Your task to perform on an android device: Go to Yahoo.com Image 0: 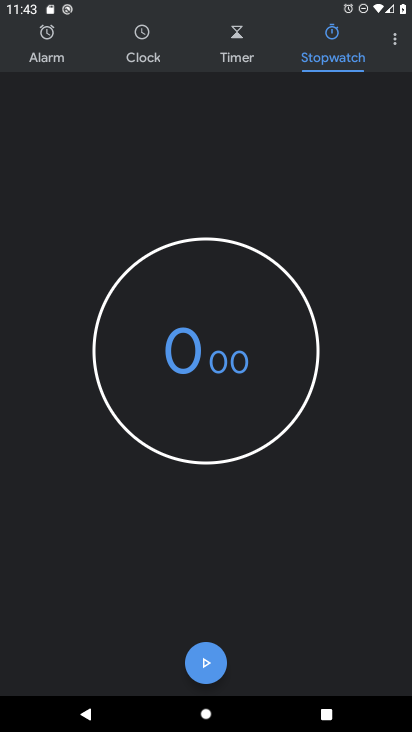
Step 0: drag from (334, 614) to (140, 224)
Your task to perform on an android device: Go to Yahoo.com Image 1: 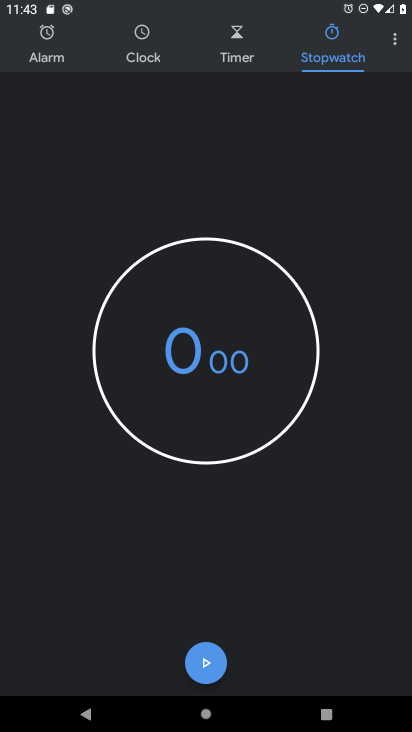
Step 1: press home button
Your task to perform on an android device: Go to Yahoo.com Image 2: 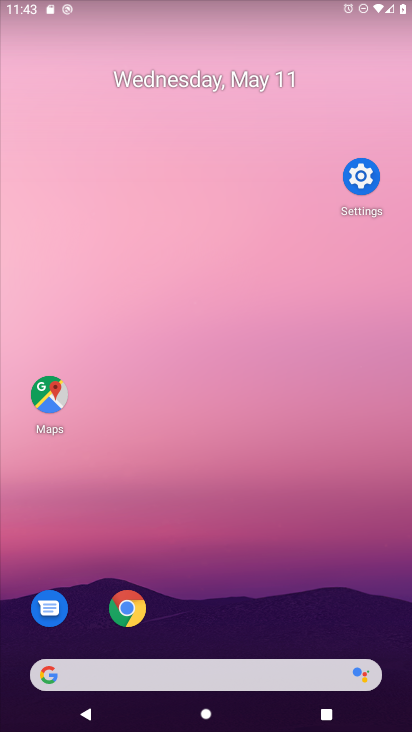
Step 2: drag from (290, 626) to (152, 125)
Your task to perform on an android device: Go to Yahoo.com Image 3: 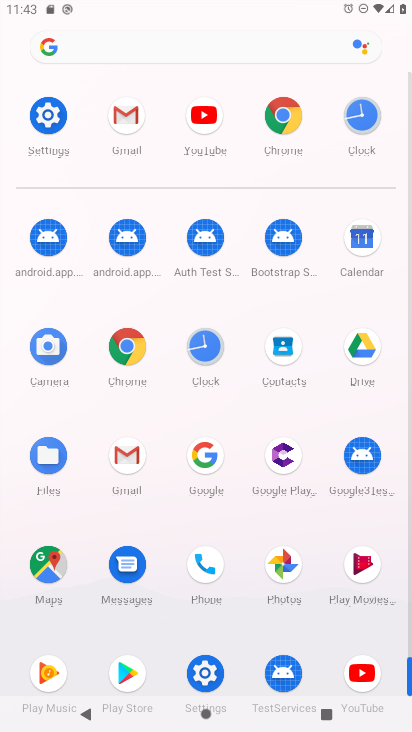
Step 3: click (272, 122)
Your task to perform on an android device: Go to Yahoo.com Image 4: 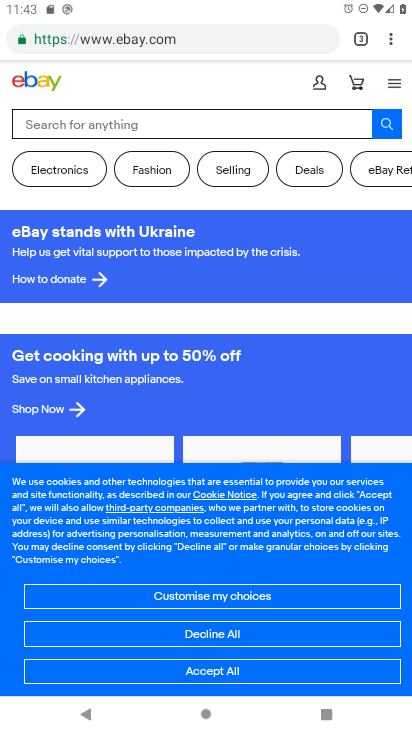
Step 4: drag from (386, 39) to (231, 65)
Your task to perform on an android device: Go to Yahoo.com Image 5: 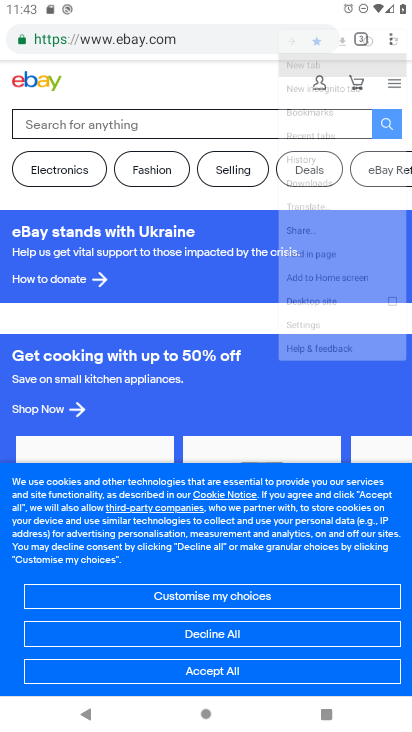
Step 5: click (231, 66)
Your task to perform on an android device: Go to Yahoo.com Image 6: 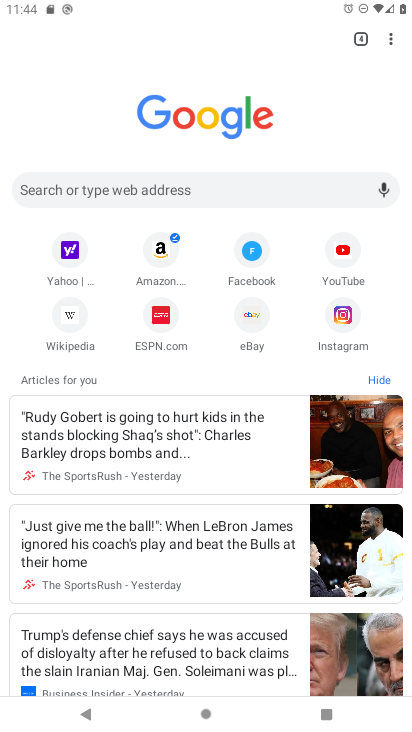
Step 6: click (65, 253)
Your task to perform on an android device: Go to Yahoo.com Image 7: 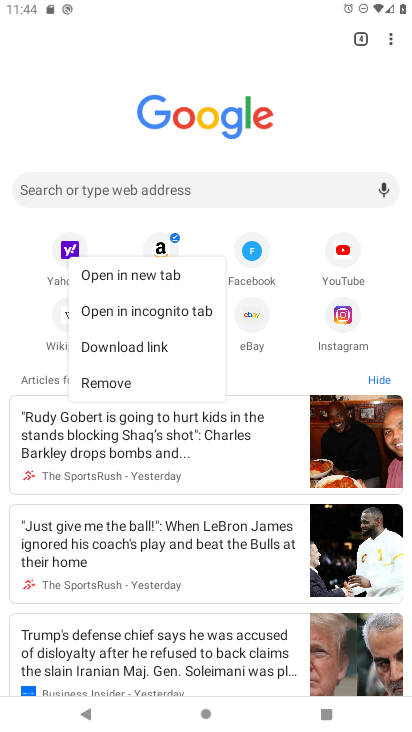
Step 7: click (117, 266)
Your task to perform on an android device: Go to Yahoo.com Image 8: 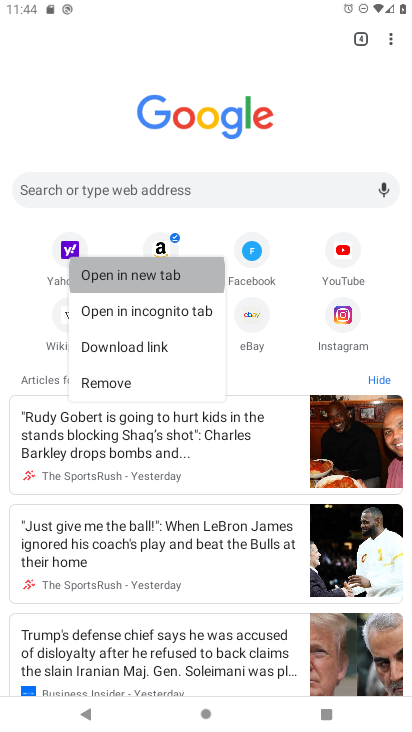
Step 8: click (117, 266)
Your task to perform on an android device: Go to Yahoo.com Image 9: 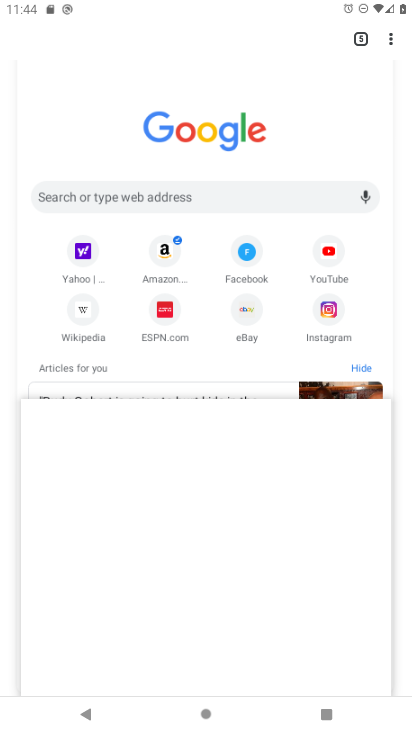
Step 9: click (117, 266)
Your task to perform on an android device: Go to Yahoo.com Image 10: 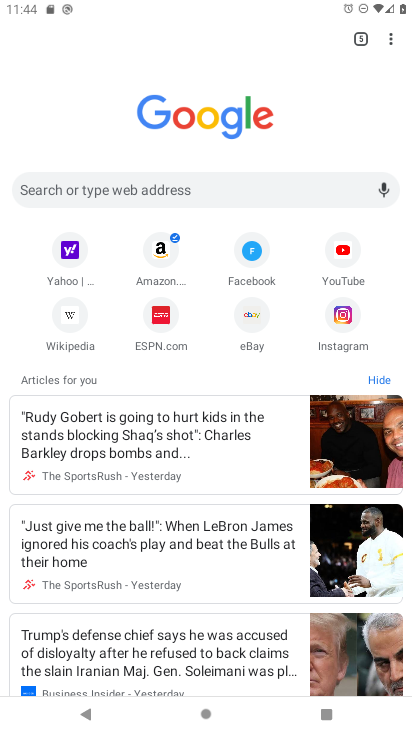
Step 10: click (70, 248)
Your task to perform on an android device: Go to Yahoo.com Image 11: 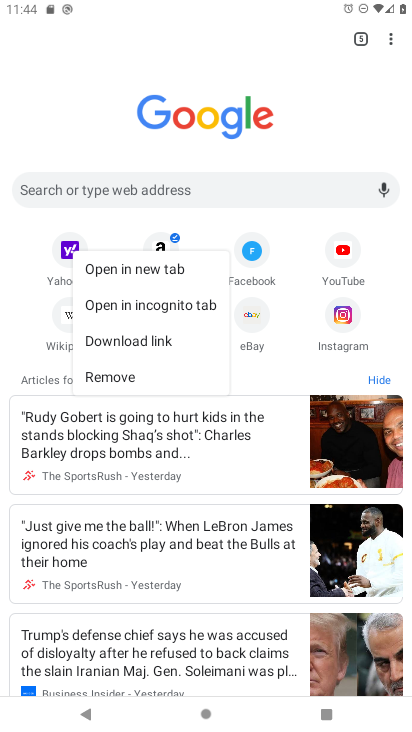
Step 11: click (69, 250)
Your task to perform on an android device: Go to Yahoo.com Image 12: 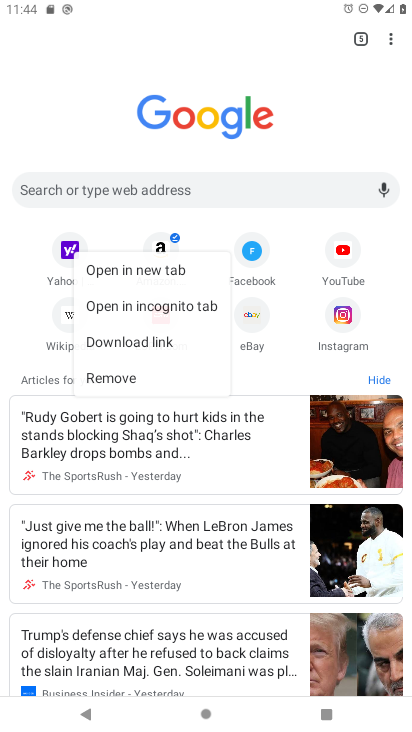
Step 12: click (69, 251)
Your task to perform on an android device: Go to Yahoo.com Image 13: 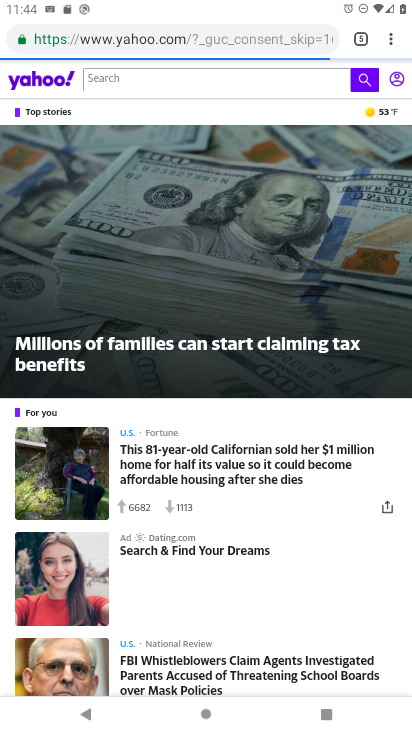
Step 13: task complete